Your task to perform on an android device: Open Wikipedia Image 0: 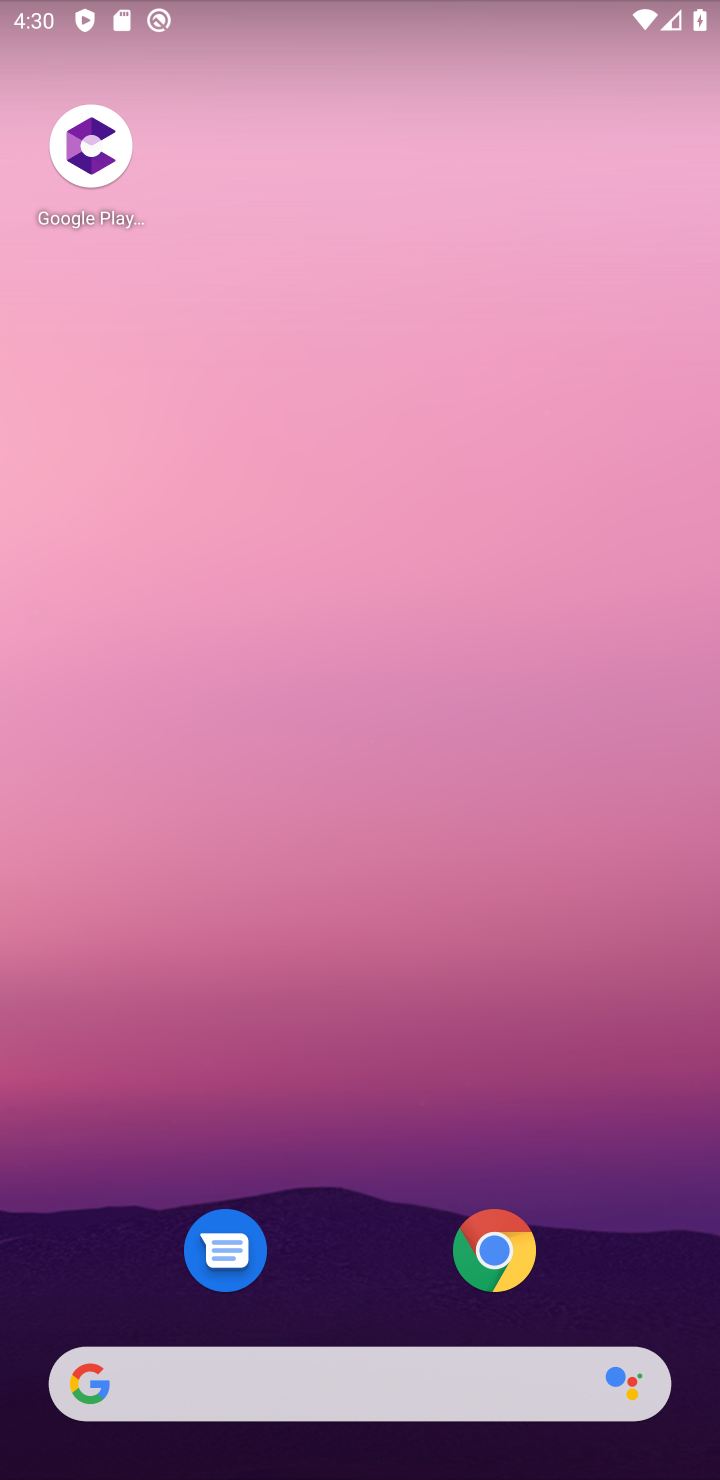
Step 0: click (472, 1257)
Your task to perform on an android device: Open Wikipedia Image 1: 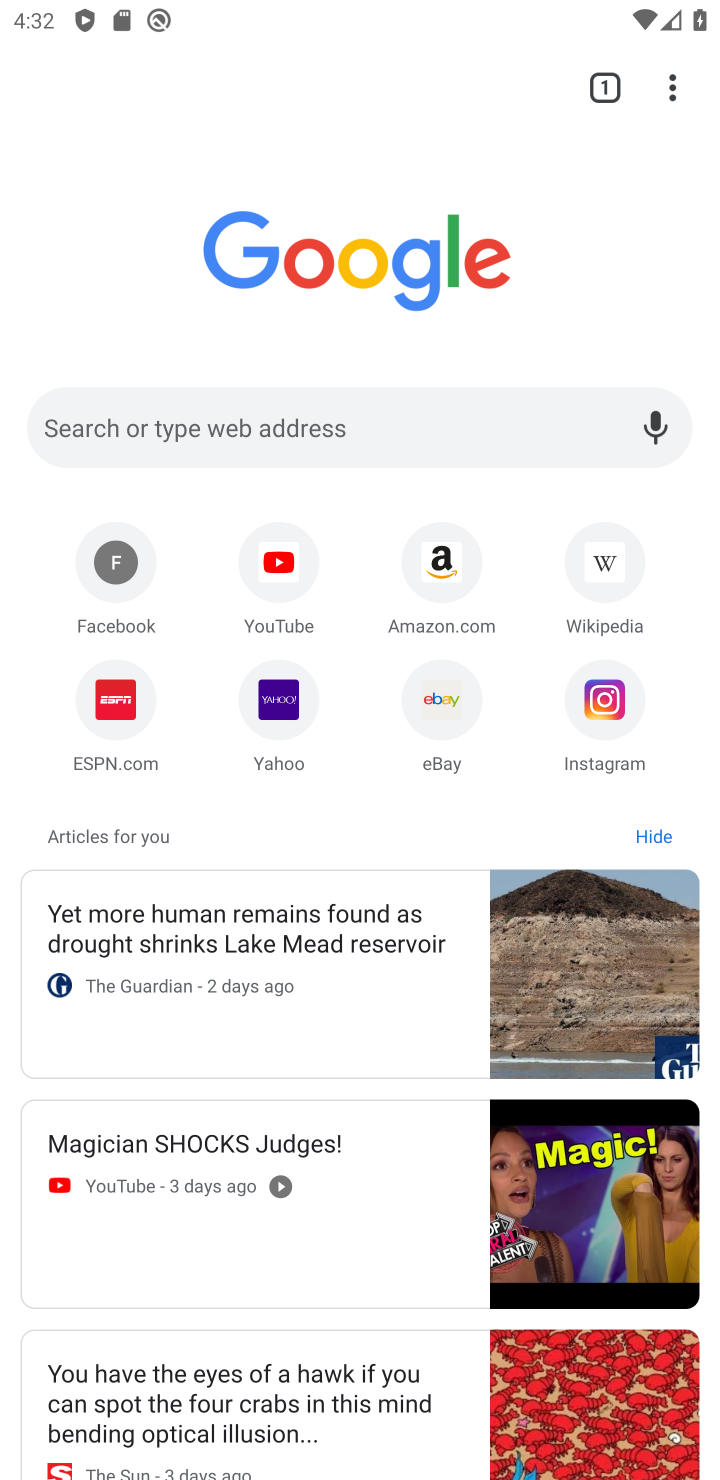
Step 1: click (606, 568)
Your task to perform on an android device: Open Wikipedia Image 2: 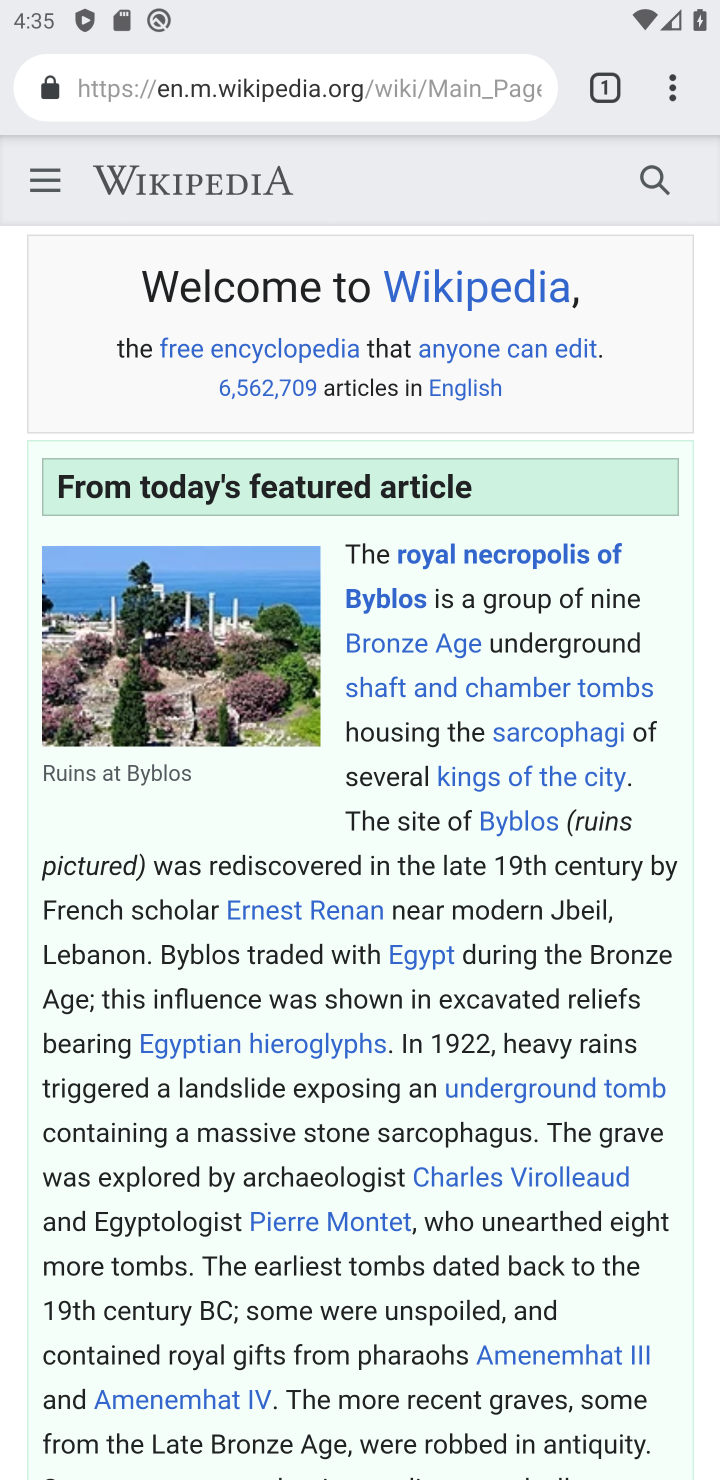
Step 2: task complete